Your task to perform on an android device: open sync settings in chrome Image 0: 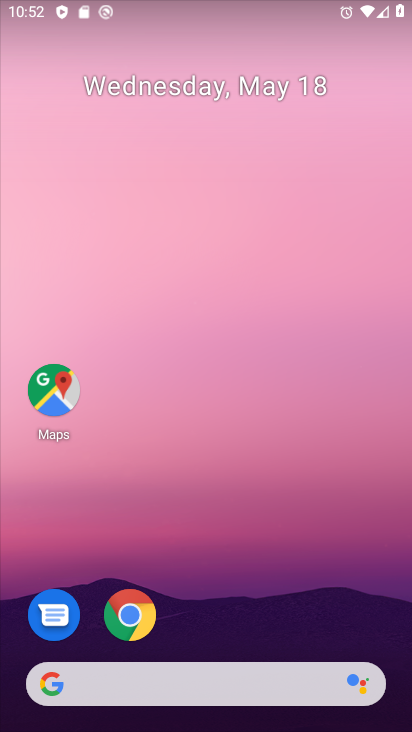
Step 0: drag from (225, 661) to (214, 246)
Your task to perform on an android device: open sync settings in chrome Image 1: 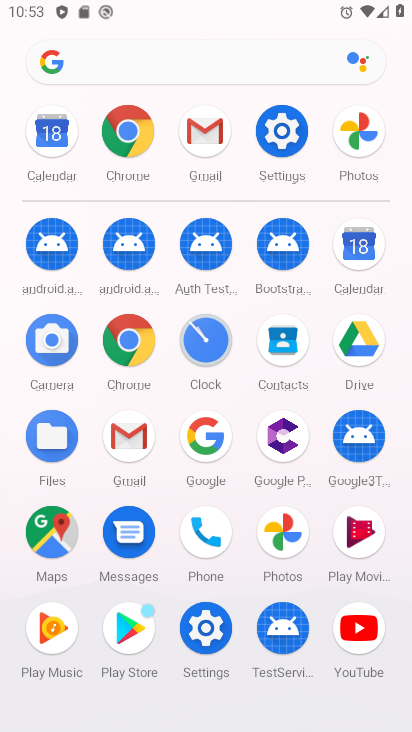
Step 1: click (122, 141)
Your task to perform on an android device: open sync settings in chrome Image 2: 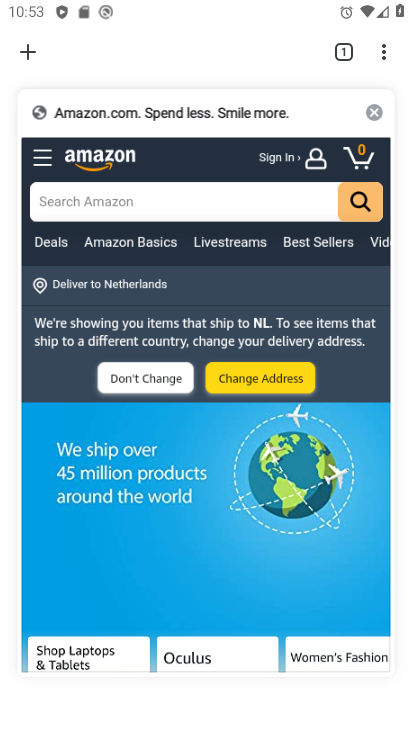
Step 2: click (384, 46)
Your task to perform on an android device: open sync settings in chrome Image 3: 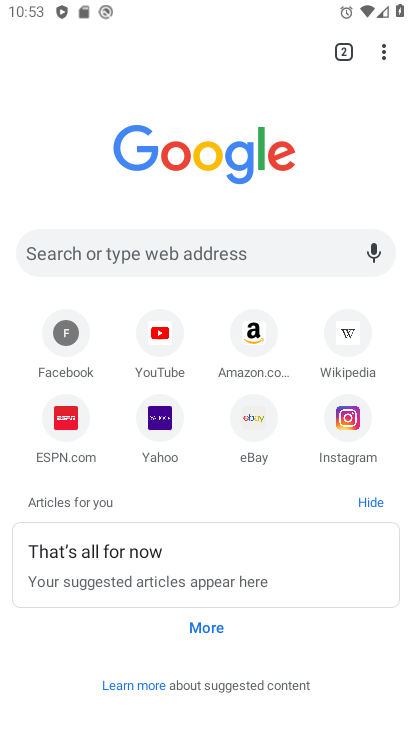
Step 3: click (379, 50)
Your task to perform on an android device: open sync settings in chrome Image 4: 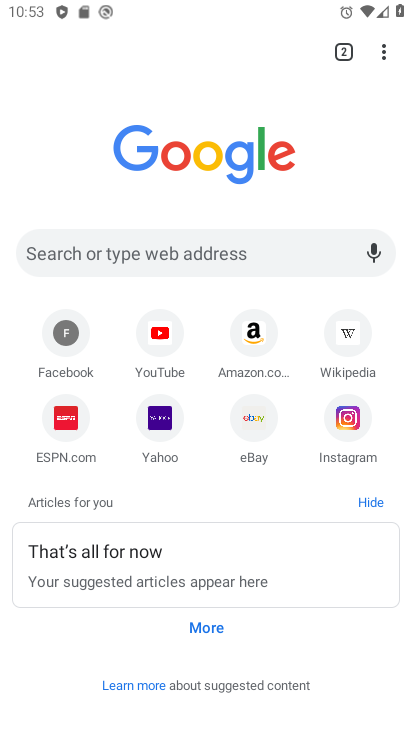
Step 4: click (379, 50)
Your task to perform on an android device: open sync settings in chrome Image 5: 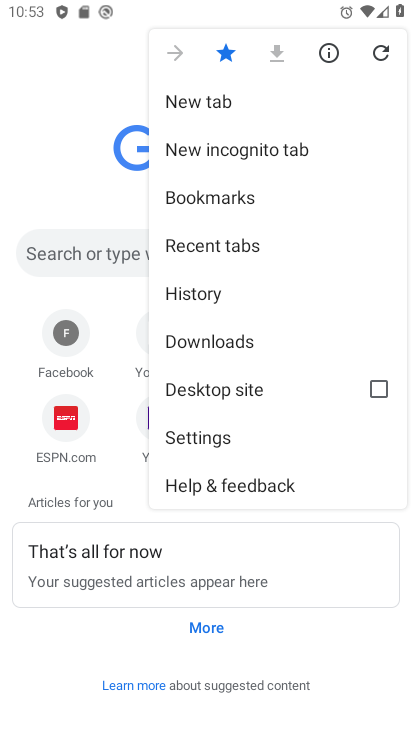
Step 5: click (209, 435)
Your task to perform on an android device: open sync settings in chrome Image 6: 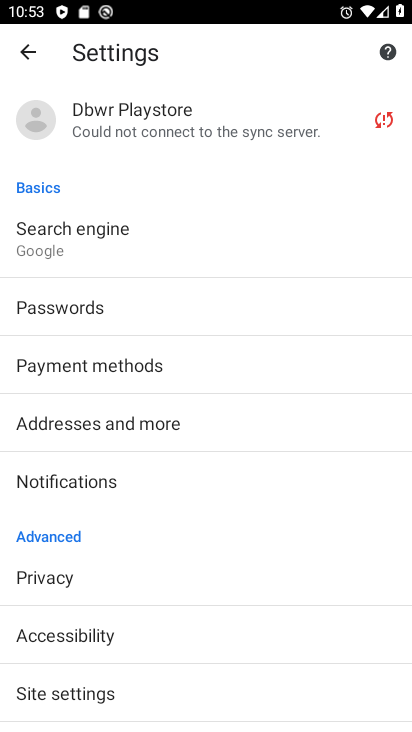
Step 6: click (127, 125)
Your task to perform on an android device: open sync settings in chrome Image 7: 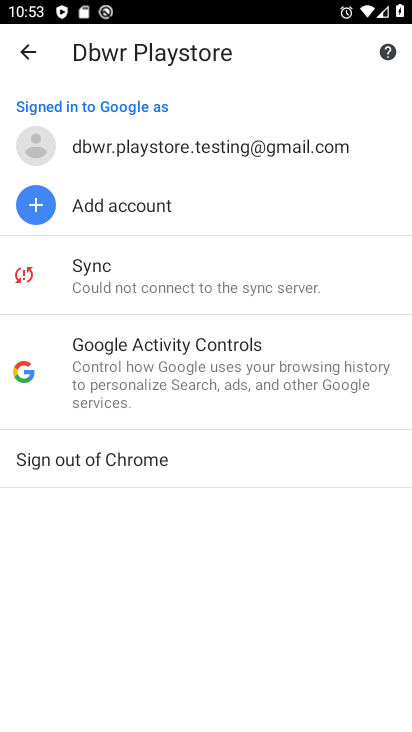
Step 7: click (104, 267)
Your task to perform on an android device: open sync settings in chrome Image 8: 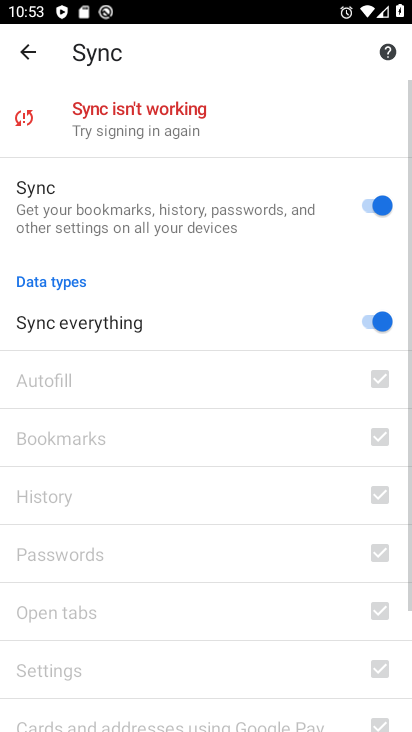
Step 8: click (86, 108)
Your task to perform on an android device: open sync settings in chrome Image 9: 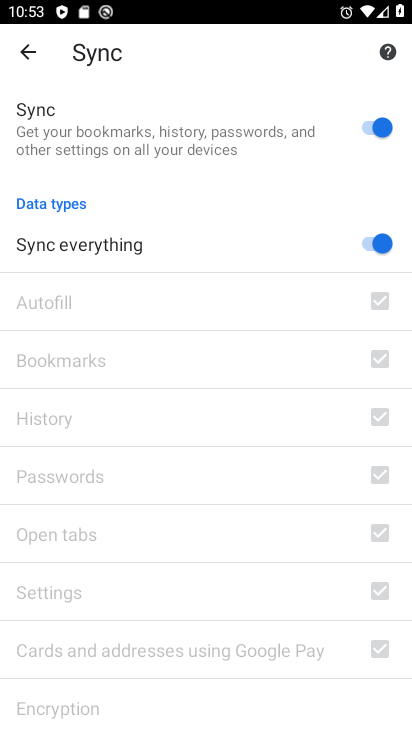
Step 9: task complete